Your task to perform on an android device: toggle priority inbox in the gmail app Image 0: 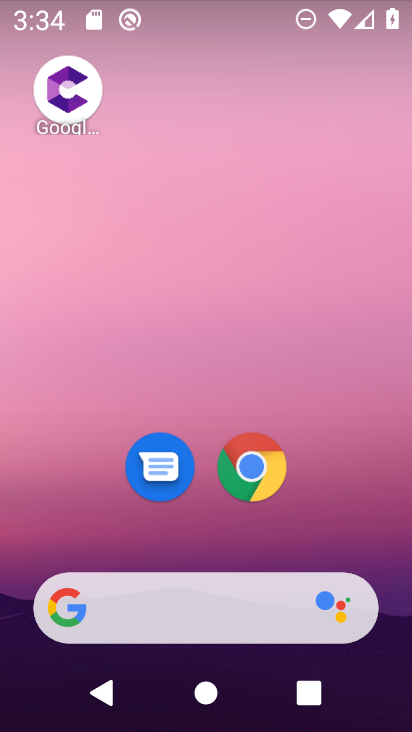
Step 0: drag from (220, 550) to (232, 1)
Your task to perform on an android device: toggle priority inbox in the gmail app Image 1: 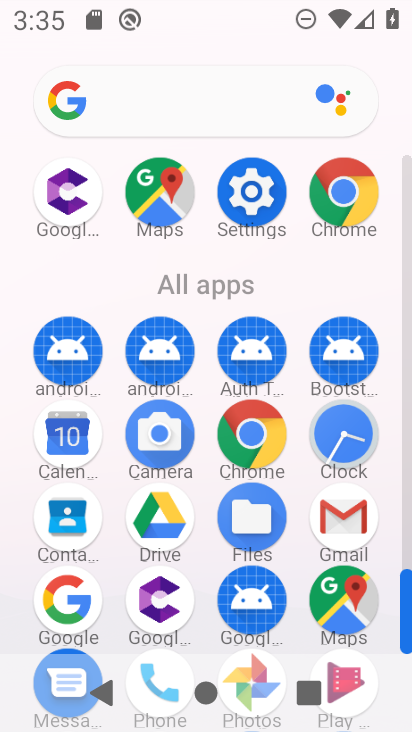
Step 1: click (340, 517)
Your task to perform on an android device: toggle priority inbox in the gmail app Image 2: 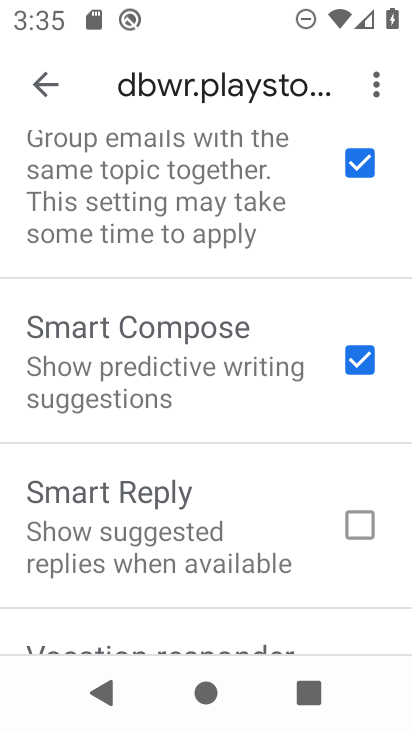
Step 2: press home button
Your task to perform on an android device: toggle priority inbox in the gmail app Image 3: 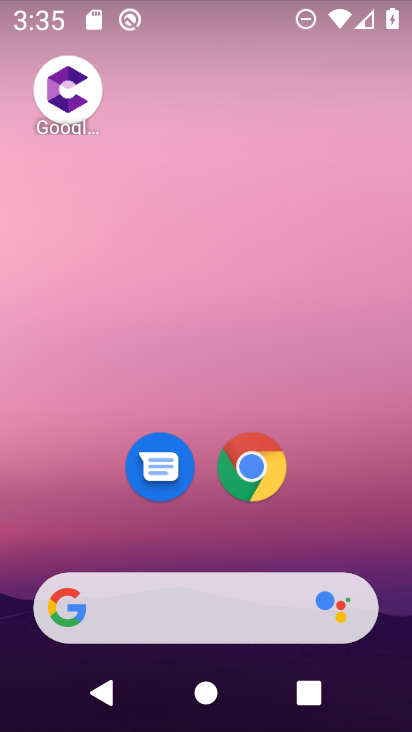
Step 3: drag from (216, 562) to (130, 4)
Your task to perform on an android device: toggle priority inbox in the gmail app Image 4: 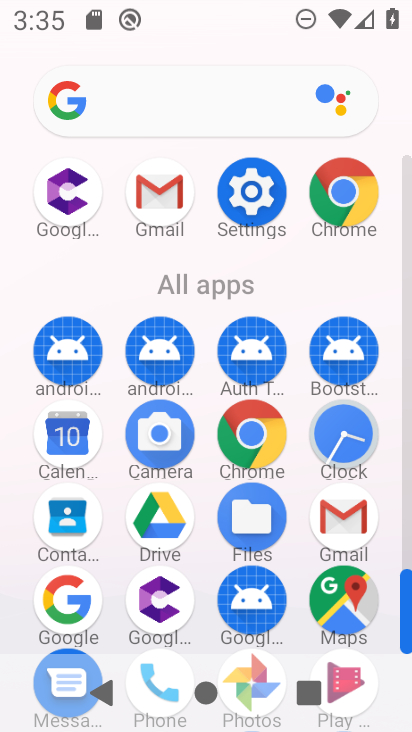
Step 4: click (339, 521)
Your task to perform on an android device: toggle priority inbox in the gmail app Image 5: 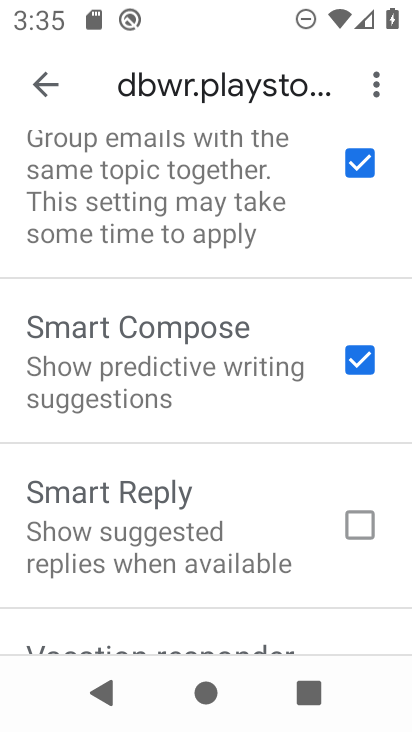
Step 5: press home button
Your task to perform on an android device: toggle priority inbox in the gmail app Image 6: 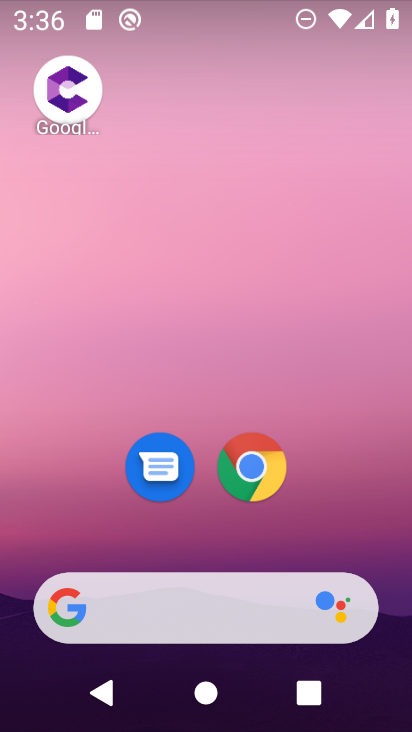
Step 6: drag from (224, 548) to (158, 5)
Your task to perform on an android device: toggle priority inbox in the gmail app Image 7: 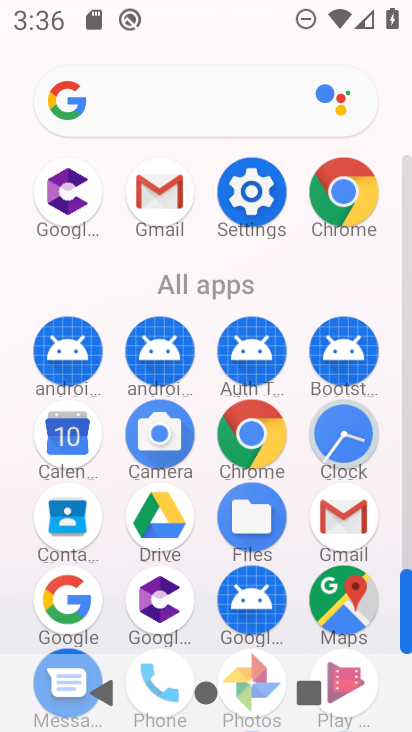
Step 7: click (359, 513)
Your task to perform on an android device: toggle priority inbox in the gmail app Image 8: 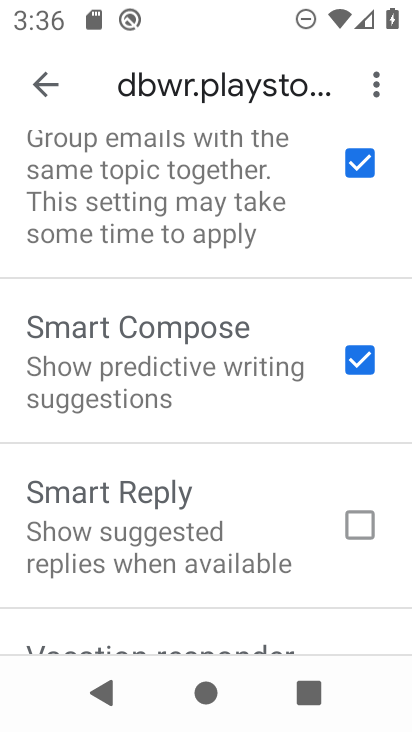
Step 8: click (43, 68)
Your task to perform on an android device: toggle priority inbox in the gmail app Image 9: 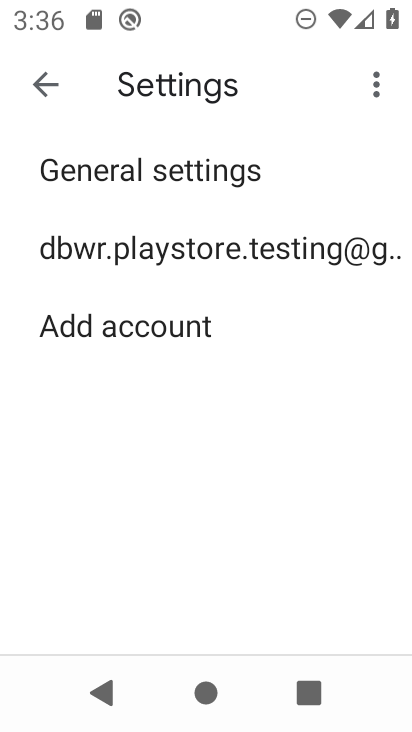
Step 9: click (184, 250)
Your task to perform on an android device: toggle priority inbox in the gmail app Image 10: 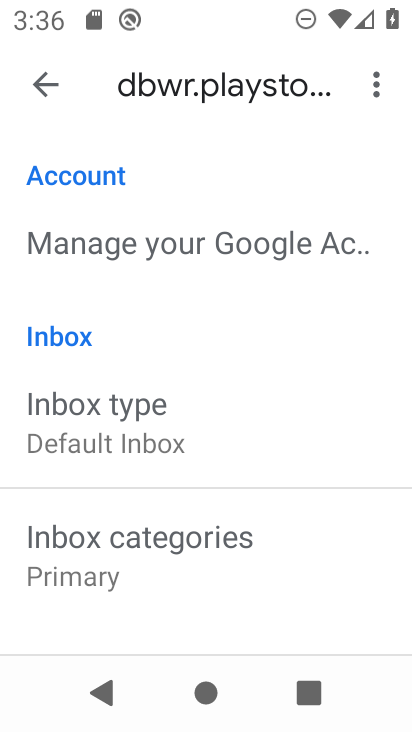
Step 10: click (134, 435)
Your task to perform on an android device: toggle priority inbox in the gmail app Image 11: 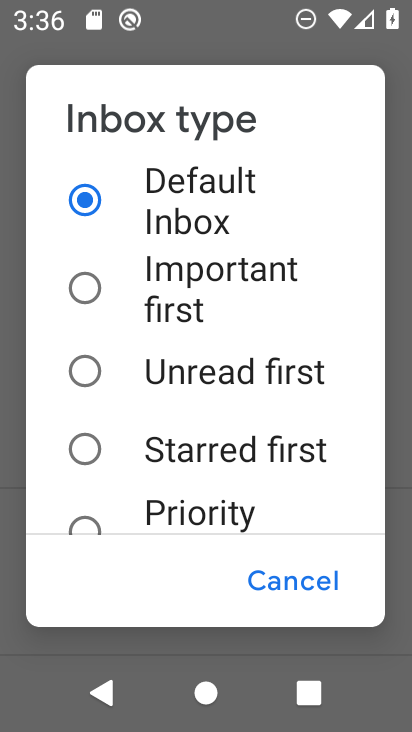
Step 11: click (173, 518)
Your task to perform on an android device: toggle priority inbox in the gmail app Image 12: 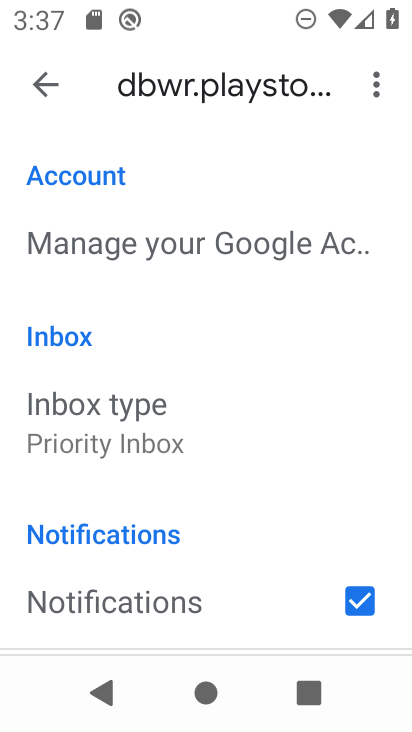
Step 12: task complete